Your task to perform on an android device: Go to CNN.com Image 0: 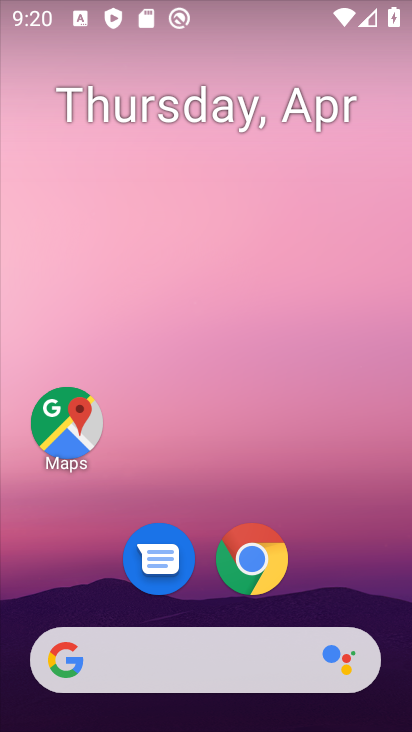
Step 0: click (241, 562)
Your task to perform on an android device: Go to CNN.com Image 1: 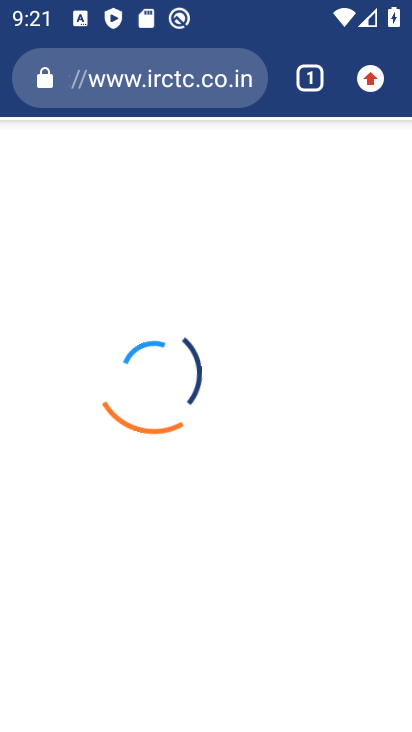
Step 1: click (368, 82)
Your task to perform on an android device: Go to CNN.com Image 2: 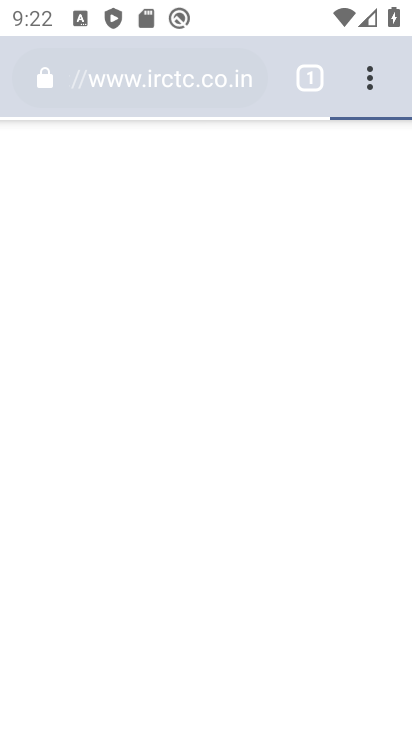
Step 2: click (366, 82)
Your task to perform on an android device: Go to CNN.com Image 3: 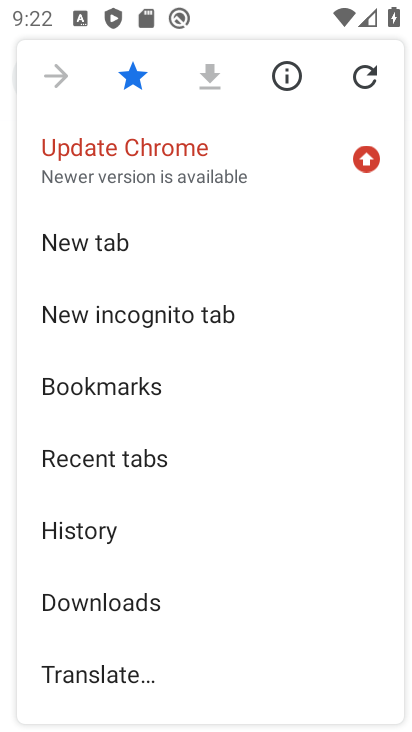
Step 3: click (128, 263)
Your task to perform on an android device: Go to CNN.com Image 4: 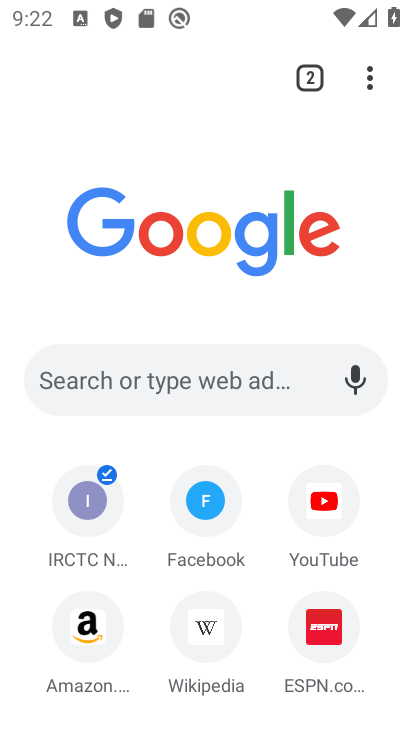
Step 4: click (204, 387)
Your task to perform on an android device: Go to CNN.com Image 5: 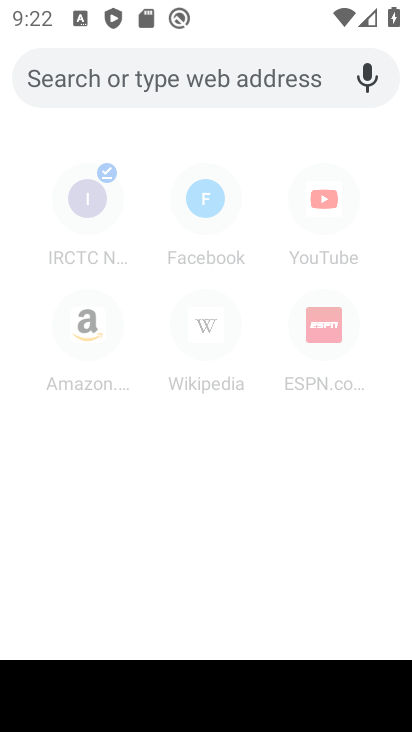
Step 5: type "cnn.com"
Your task to perform on an android device: Go to CNN.com Image 6: 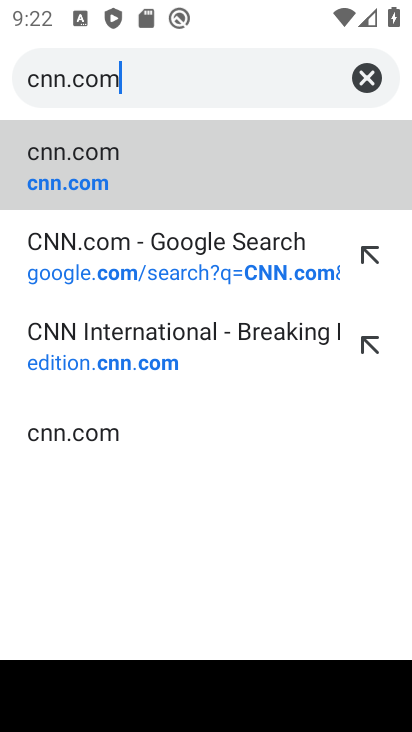
Step 6: click (217, 171)
Your task to perform on an android device: Go to CNN.com Image 7: 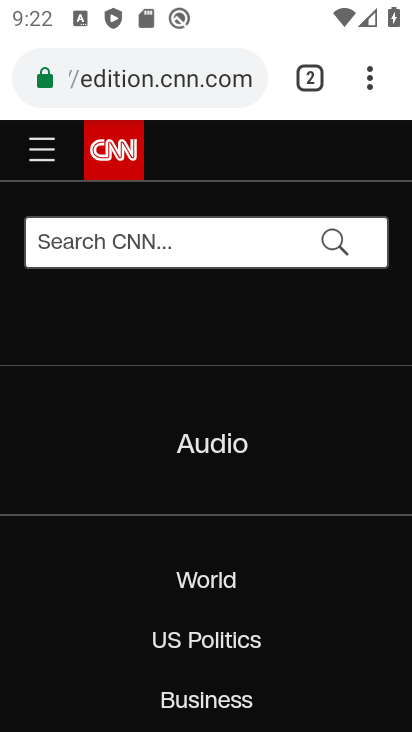
Step 7: task complete